Your task to perform on an android device: delete a single message in the gmail app Image 0: 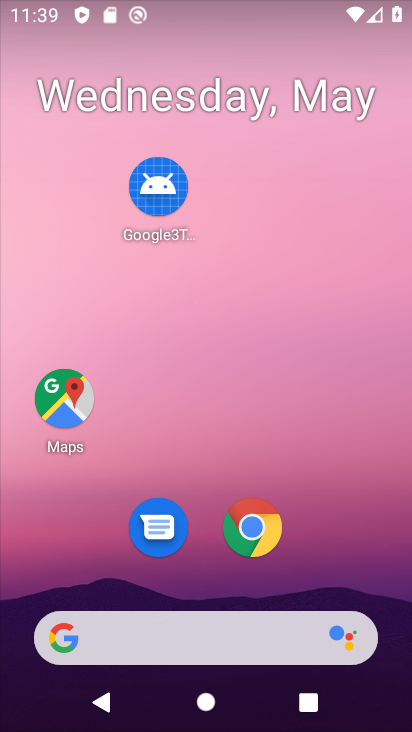
Step 0: drag from (237, 518) to (299, 12)
Your task to perform on an android device: delete a single message in the gmail app Image 1: 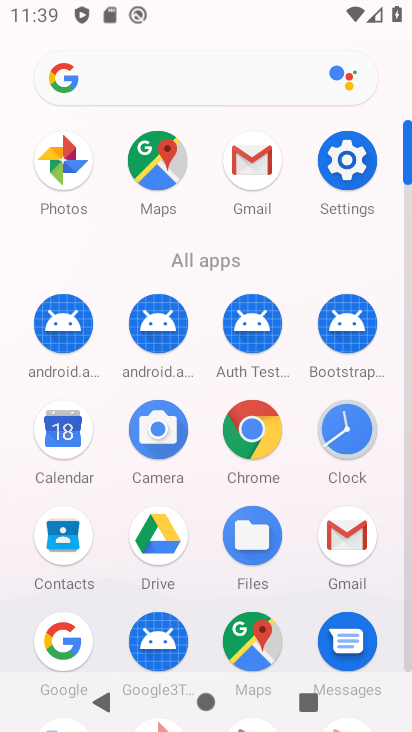
Step 1: click (340, 520)
Your task to perform on an android device: delete a single message in the gmail app Image 2: 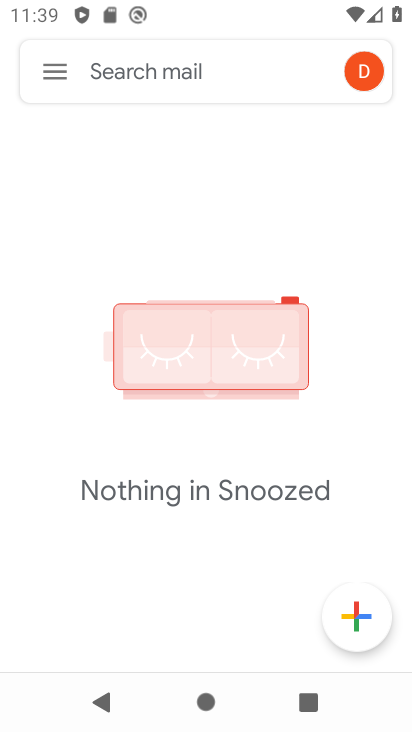
Step 2: click (44, 69)
Your task to perform on an android device: delete a single message in the gmail app Image 3: 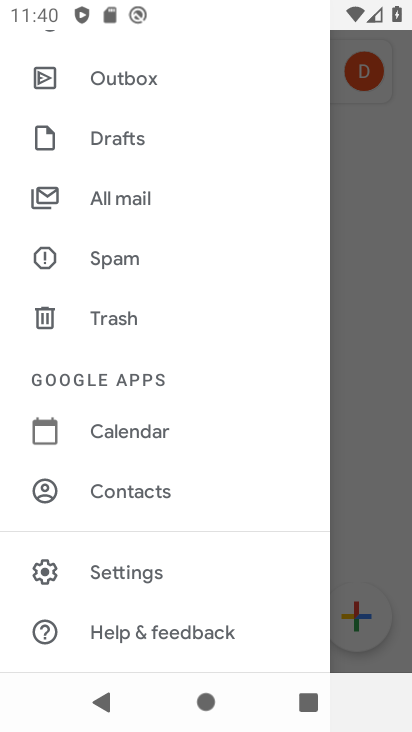
Step 3: click (137, 196)
Your task to perform on an android device: delete a single message in the gmail app Image 4: 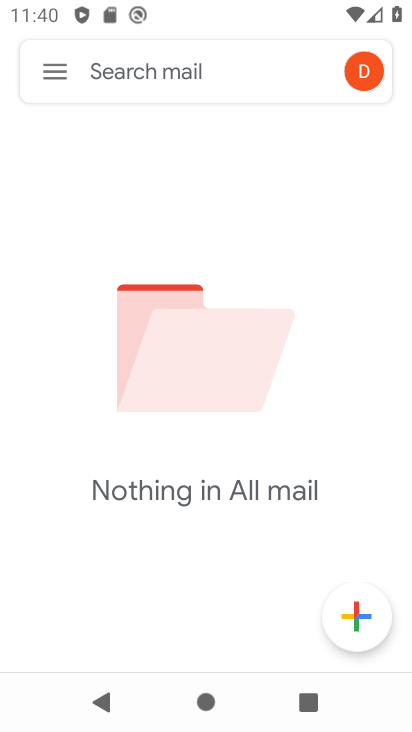
Step 4: task complete